Your task to perform on an android device: find photos in the google photos app Image 0: 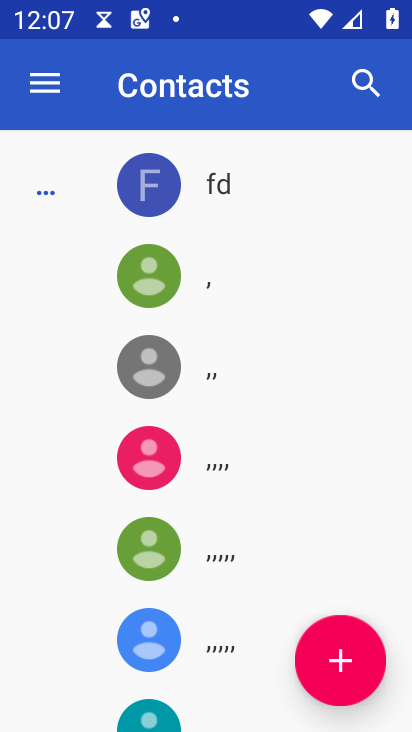
Step 0: press home button
Your task to perform on an android device: find photos in the google photos app Image 1: 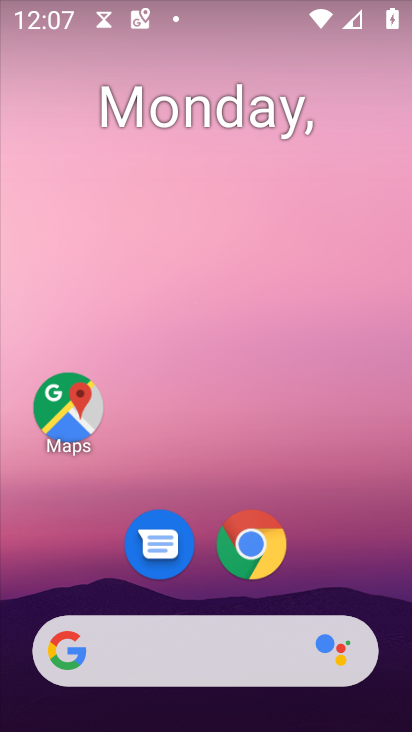
Step 1: drag from (315, 510) to (323, 262)
Your task to perform on an android device: find photos in the google photos app Image 2: 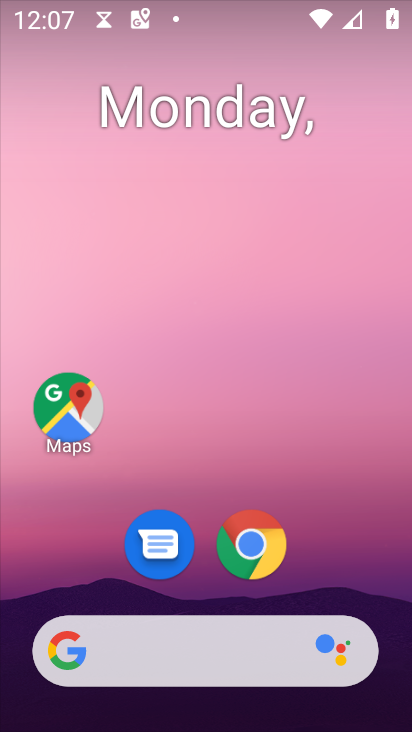
Step 2: drag from (327, 569) to (334, 208)
Your task to perform on an android device: find photos in the google photos app Image 3: 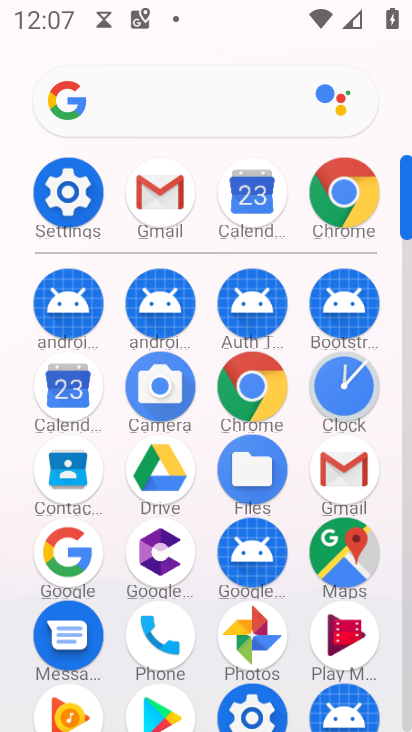
Step 3: click (262, 623)
Your task to perform on an android device: find photos in the google photos app Image 4: 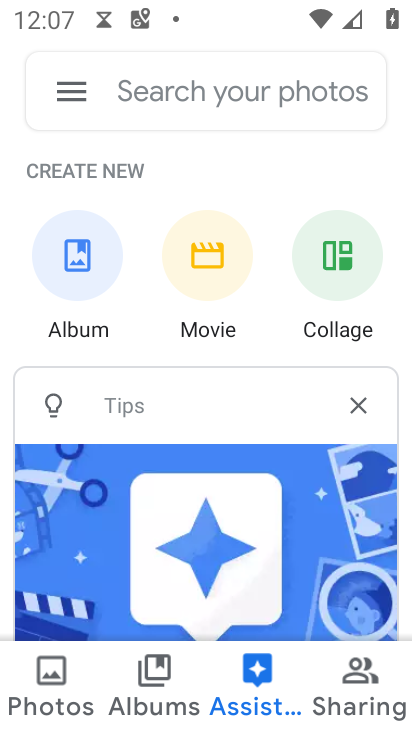
Step 4: click (141, 693)
Your task to perform on an android device: find photos in the google photos app Image 5: 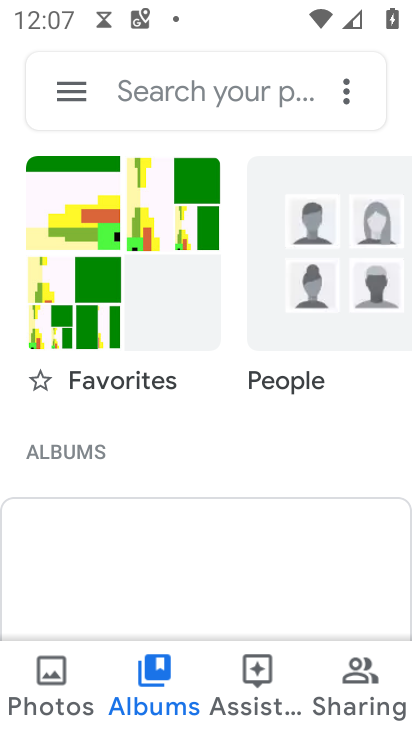
Step 5: click (58, 671)
Your task to perform on an android device: find photos in the google photos app Image 6: 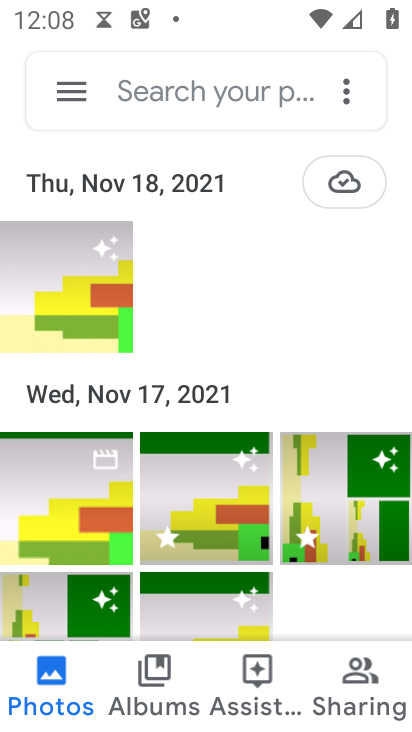
Step 6: task complete